Your task to perform on an android device: open sync settings in chrome Image 0: 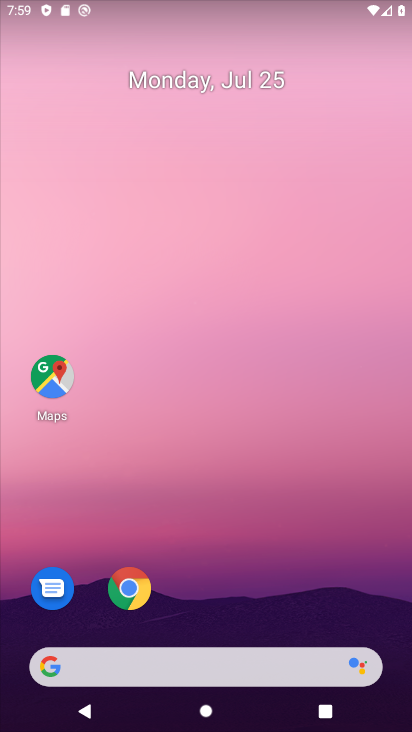
Step 0: drag from (173, 646) to (186, 325)
Your task to perform on an android device: open sync settings in chrome Image 1: 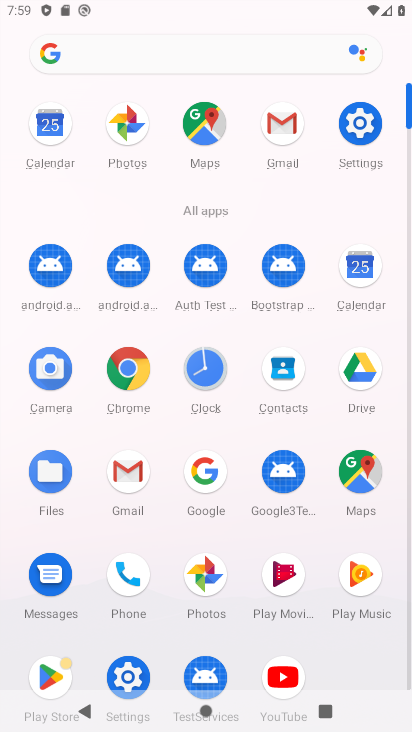
Step 1: click (121, 369)
Your task to perform on an android device: open sync settings in chrome Image 2: 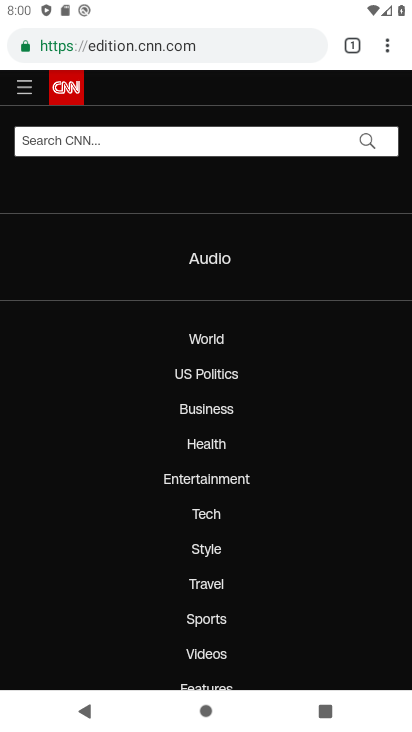
Step 2: click (387, 46)
Your task to perform on an android device: open sync settings in chrome Image 3: 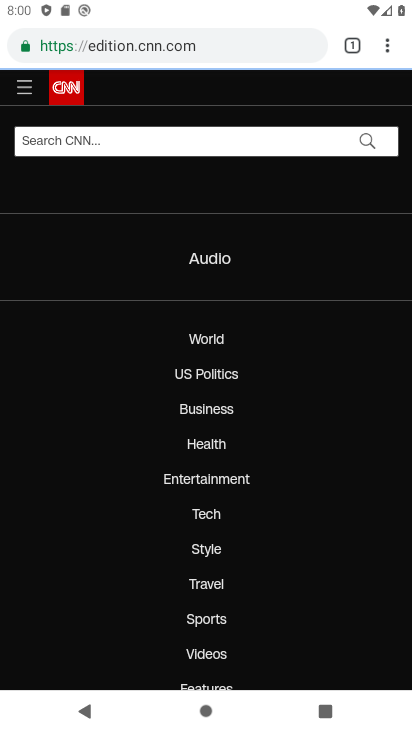
Step 3: click (390, 49)
Your task to perform on an android device: open sync settings in chrome Image 4: 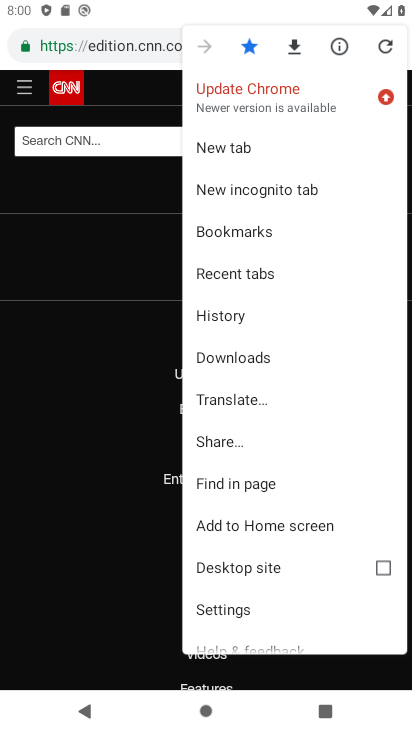
Step 4: click (230, 611)
Your task to perform on an android device: open sync settings in chrome Image 5: 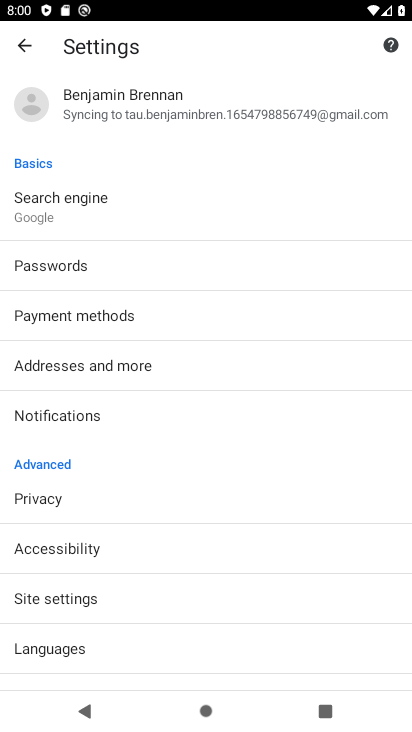
Step 5: click (76, 107)
Your task to perform on an android device: open sync settings in chrome Image 6: 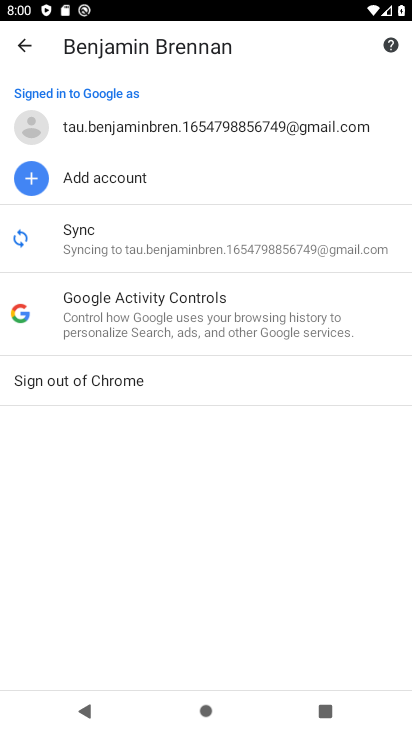
Step 6: click (94, 230)
Your task to perform on an android device: open sync settings in chrome Image 7: 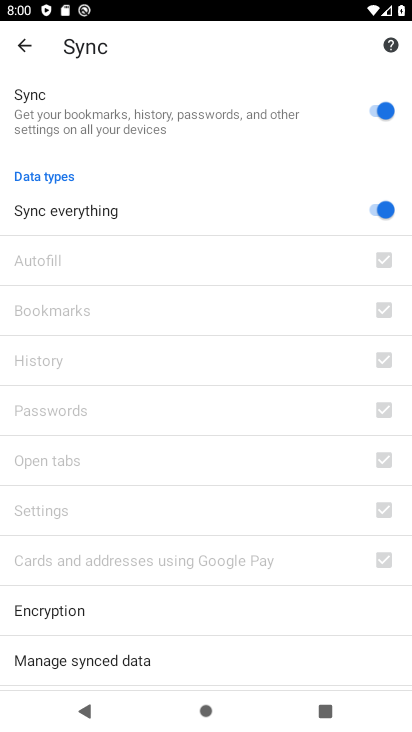
Step 7: task complete